Your task to perform on an android device: check android version Image 0: 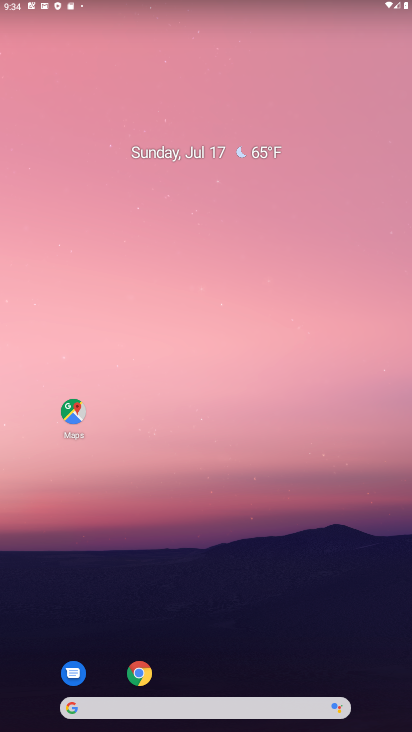
Step 0: drag from (275, 582) to (228, 99)
Your task to perform on an android device: check android version Image 1: 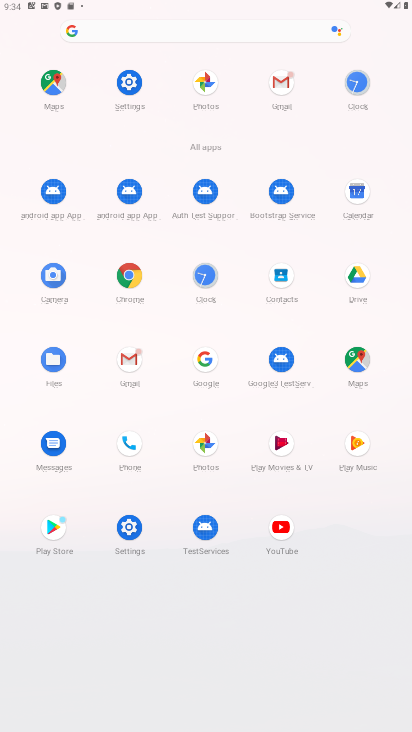
Step 1: click (127, 79)
Your task to perform on an android device: check android version Image 2: 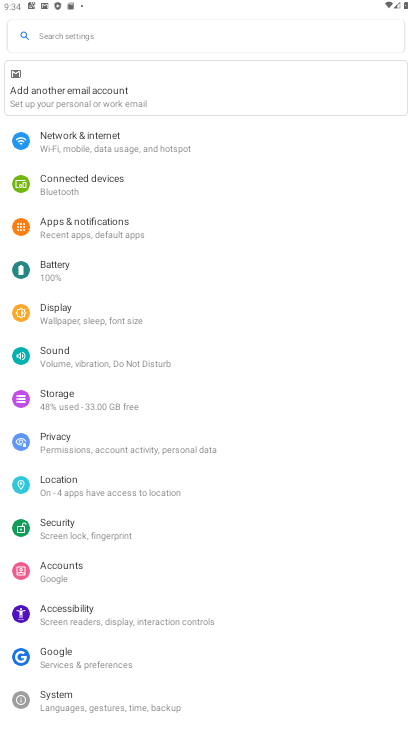
Step 2: drag from (250, 672) to (225, 229)
Your task to perform on an android device: check android version Image 3: 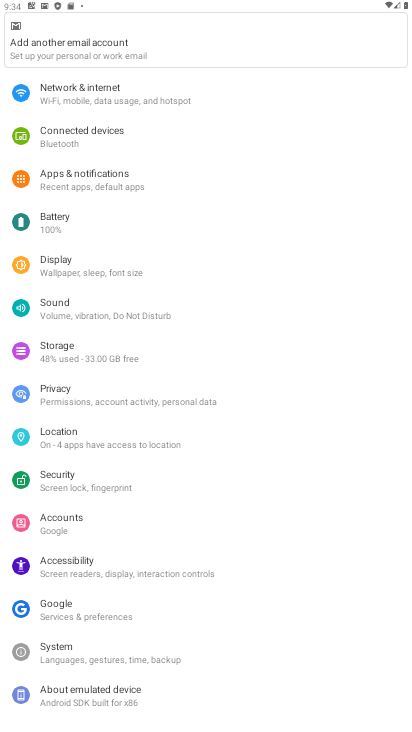
Step 3: click (107, 689)
Your task to perform on an android device: check android version Image 4: 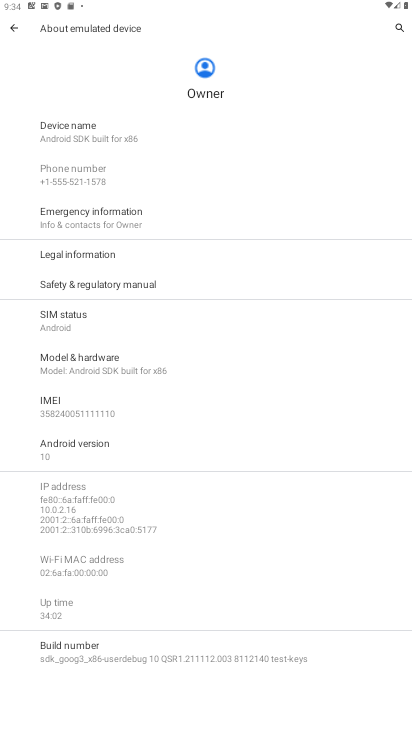
Step 4: task complete